Your task to perform on an android device: Open CNN.com Image 0: 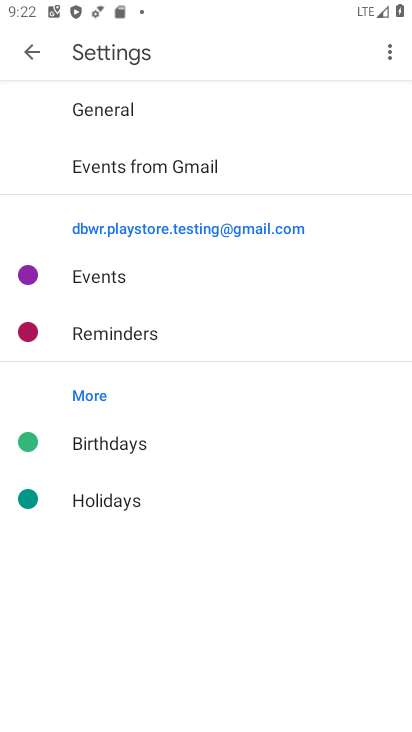
Step 0: press home button
Your task to perform on an android device: Open CNN.com Image 1: 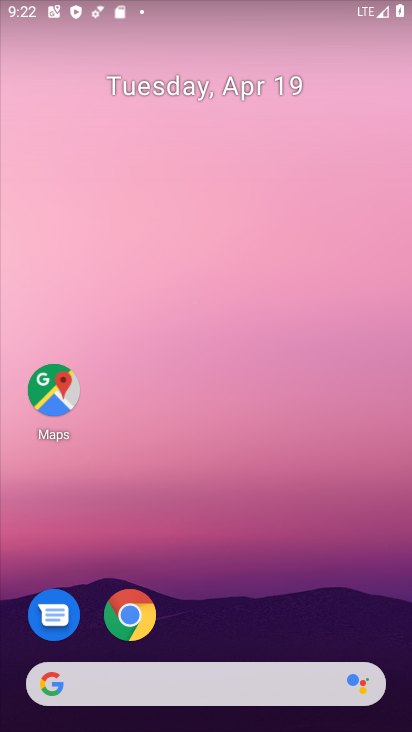
Step 1: click (143, 605)
Your task to perform on an android device: Open CNN.com Image 2: 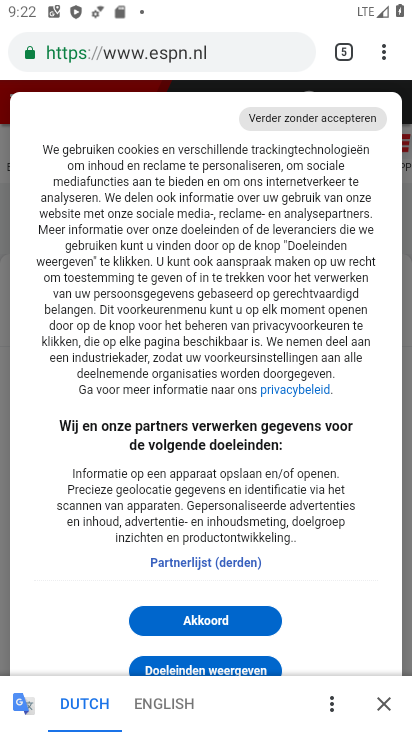
Step 2: click (349, 57)
Your task to perform on an android device: Open CNN.com Image 3: 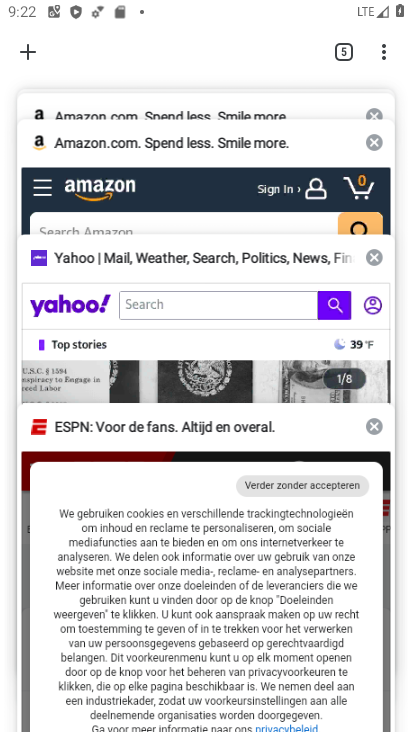
Step 3: click (26, 50)
Your task to perform on an android device: Open CNN.com Image 4: 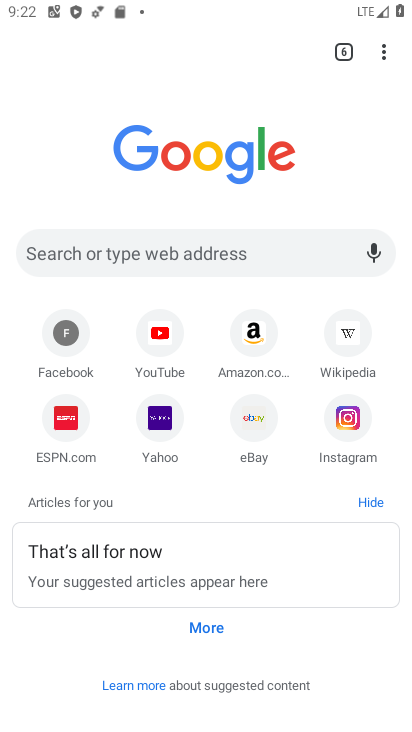
Step 4: click (144, 238)
Your task to perform on an android device: Open CNN.com Image 5: 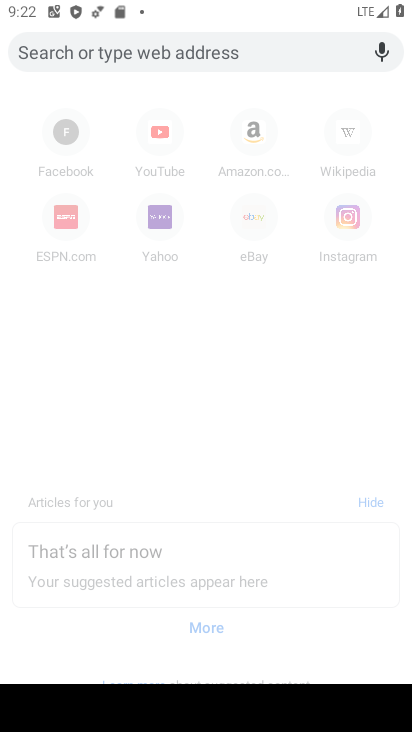
Step 5: type "cnn.com"
Your task to perform on an android device: Open CNN.com Image 6: 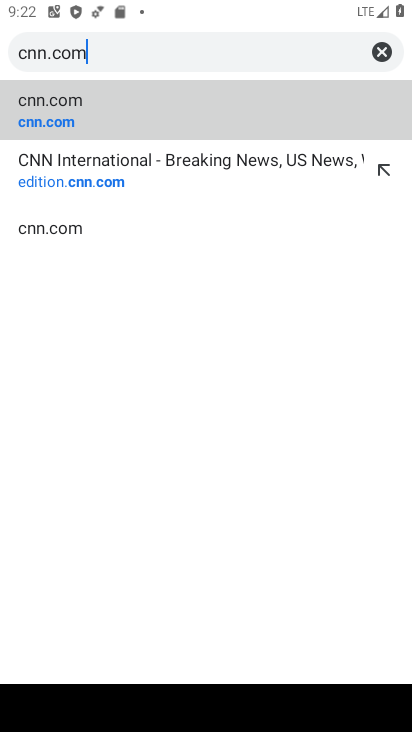
Step 6: click (36, 218)
Your task to perform on an android device: Open CNN.com Image 7: 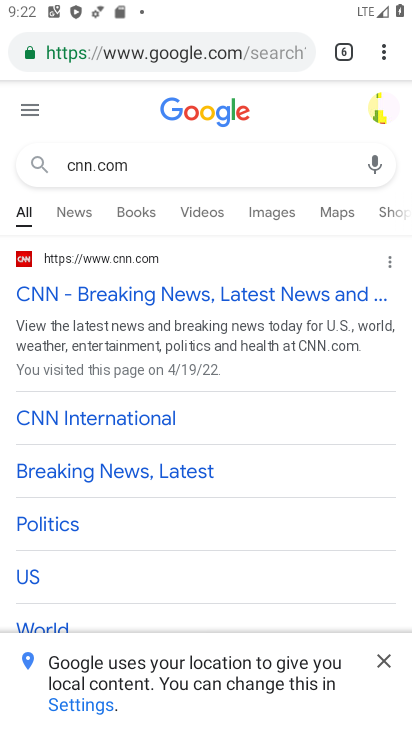
Step 7: task complete